Your task to perform on an android device: Show me popular games on the Play Store Image 0: 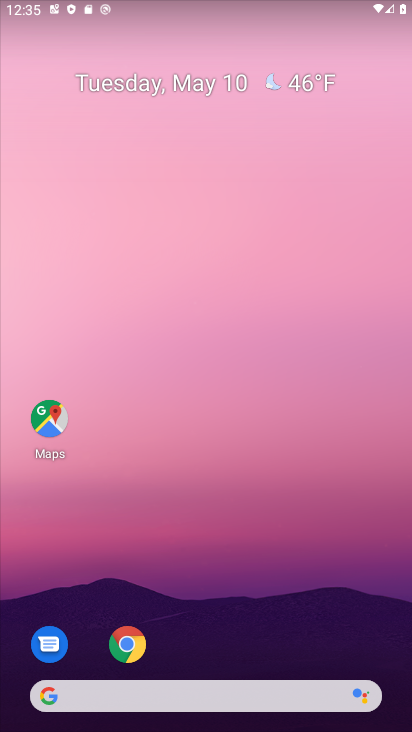
Step 0: drag from (217, 644) to (263, 390)
Your task to perform on an android device: Show me popular games on the Play Store Image 1: 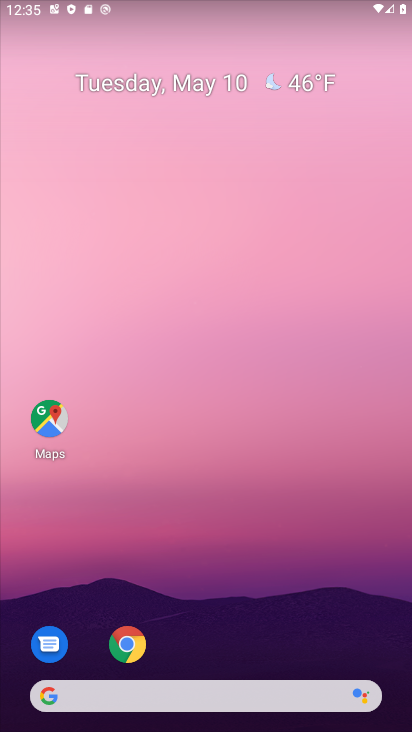
Step 1: drag from (286, 615) to (248, 296)
Your task to perform on an android device: Show me popular games on the Play Store Image 2: 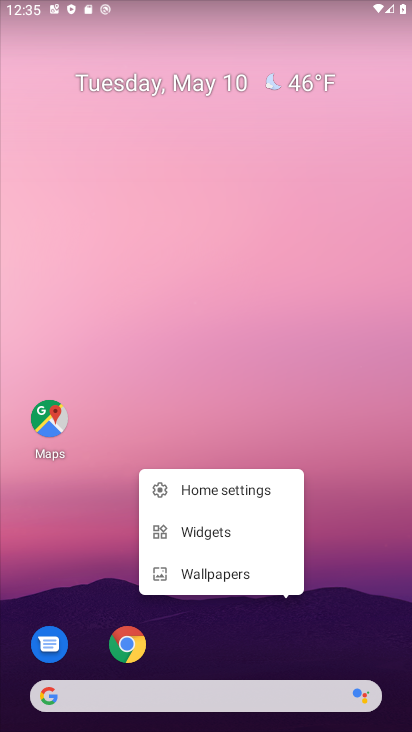
Step 2: drag from (260, 632) to (237, 287)
Your task to perform on an android device: Show me popular games on the Play Store Image 3: 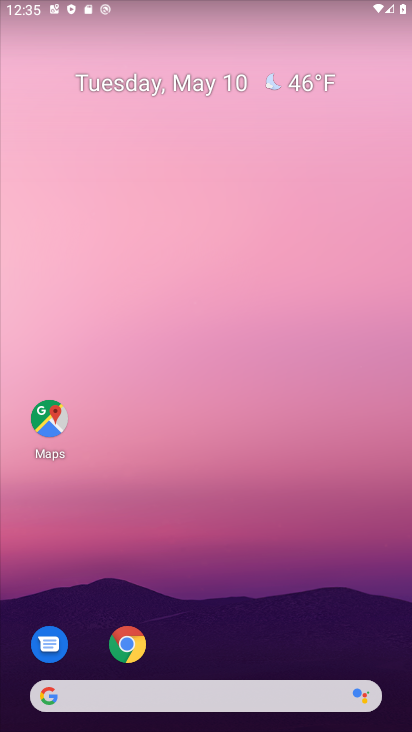
Step 3: drag from (248, 665) to (260, 76)
Your task to perform on an android device: Show me popular games on the Play Store Image 4: 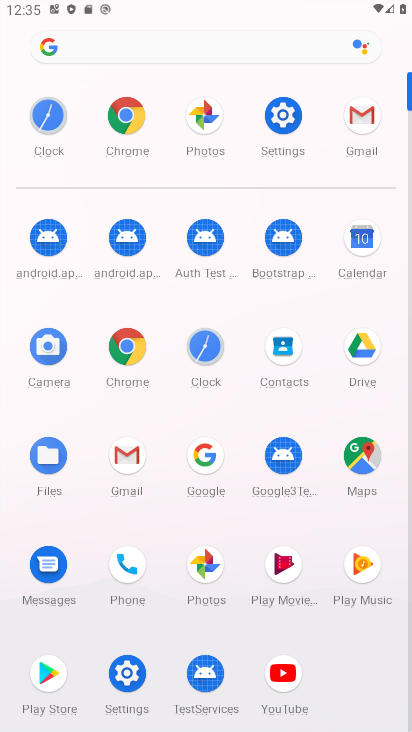
Step 4: click (59, 679)
Your task to perform on an android device: Show me popular games on the Play Store Image 5: 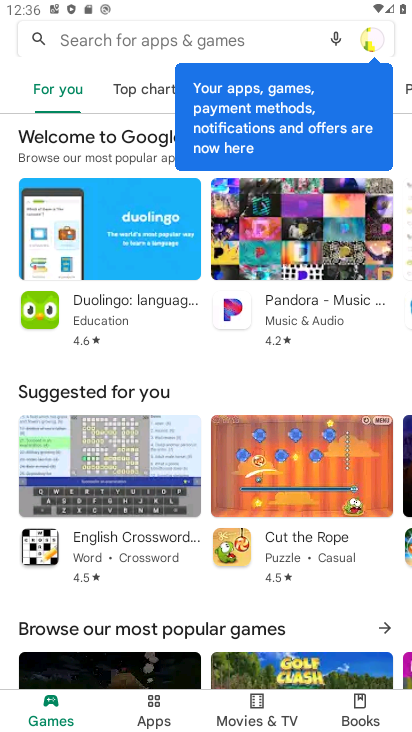
Step 5: task complete